Your task to perform on an android device: Go to network settings Image 0: 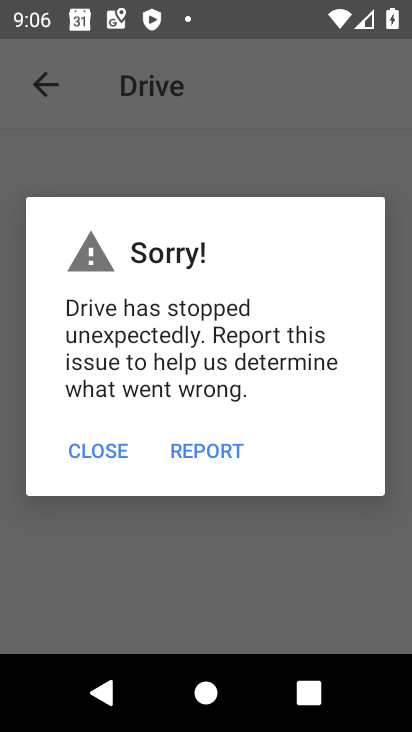
Step 0: press home button
Your task to perform on an android device: Go to network settings Image 1: 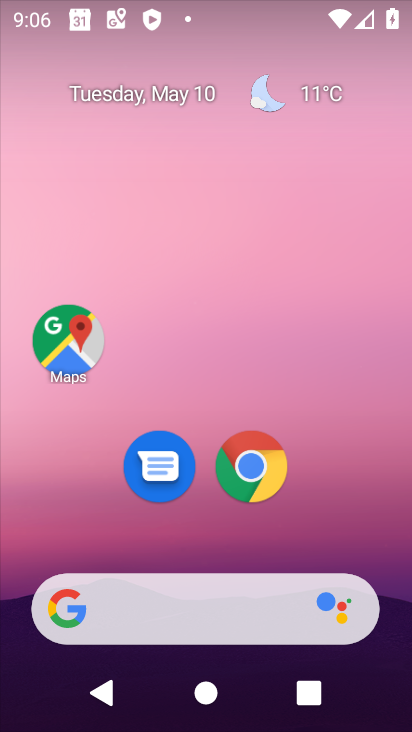
Step 1: drag from (365, 439) to (240, 169)
Your task to perform on an android device: Go to network settings Image 2: 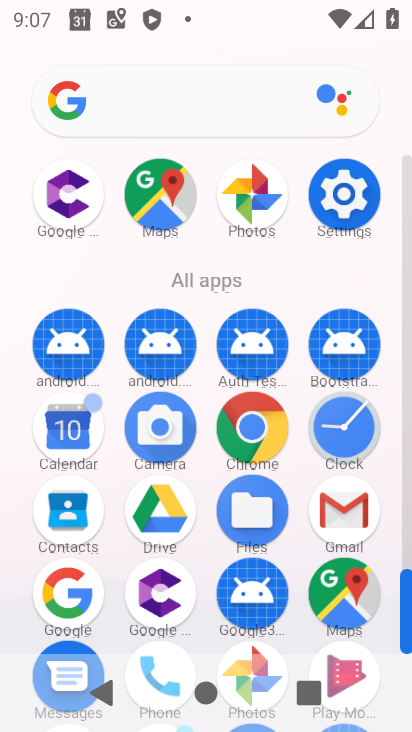
Step 2: click (358, 222)
Your task to perform on an android device: Go to network settings Image 3: 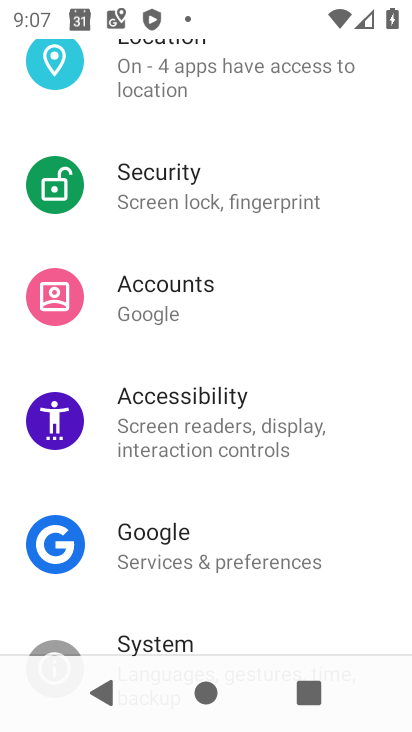
Step 3: drag from (244, 597) to (188, 295)
Your task to perform on an android device: Go to network settings Image 4: 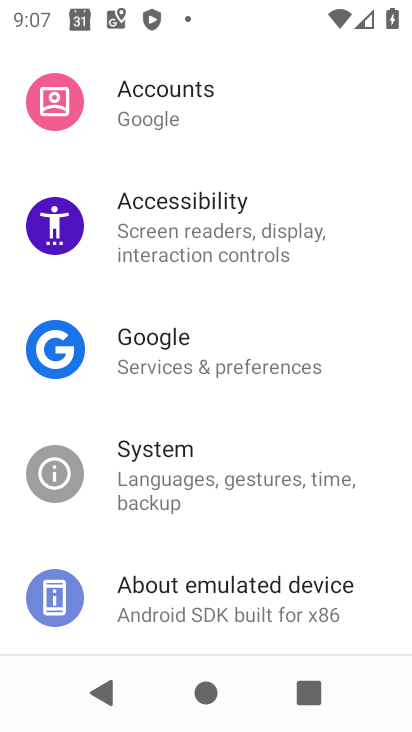
Step 4: click (207, 590)
Your task to perform on an android device: Go to network settings Image 5: 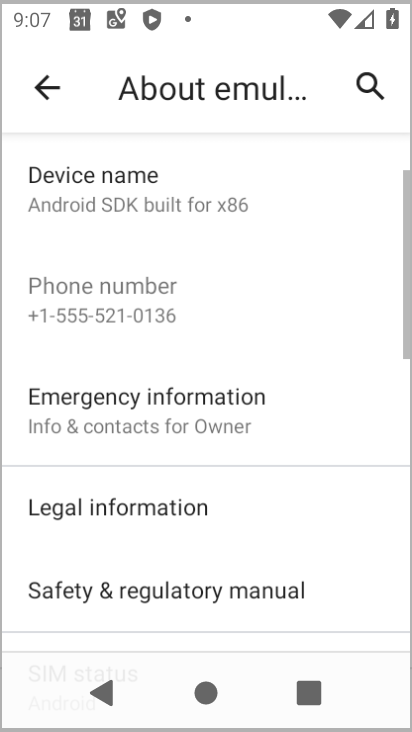
Step 5: drag from (213, 276) to (239, 624)
Your task to perform on an android device: Go to network settings Image 6: 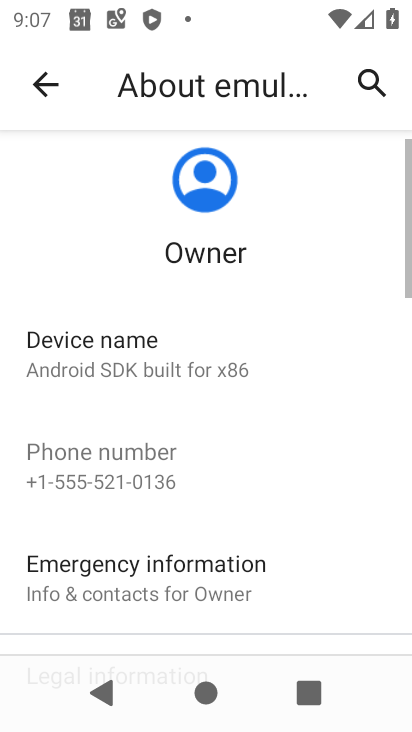
Step 6: click (33, 89)
Your task to perform on an android device: Go to network settings Image 7: 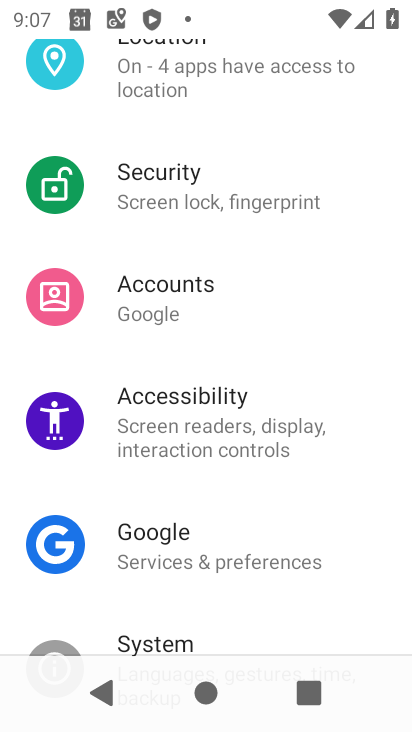
Step 7: drag from (248, 178) to (168, 600)
Your task to perform on an android device: Go to network settings Image 8: 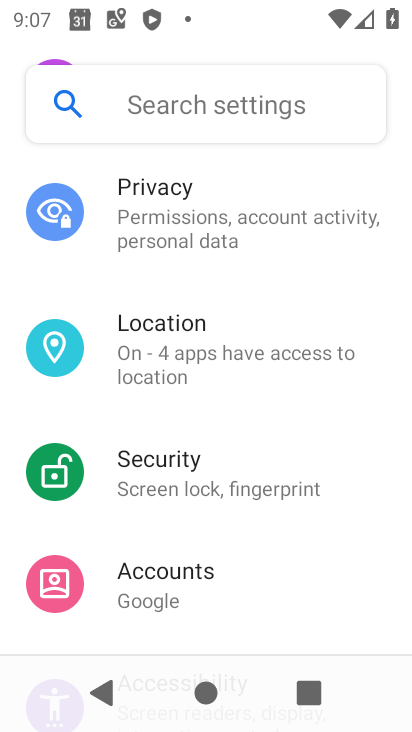
Step 8: drag from (192, 196) to (233, 526)
Your task to perform on an android device: Go to network settings Image 9: 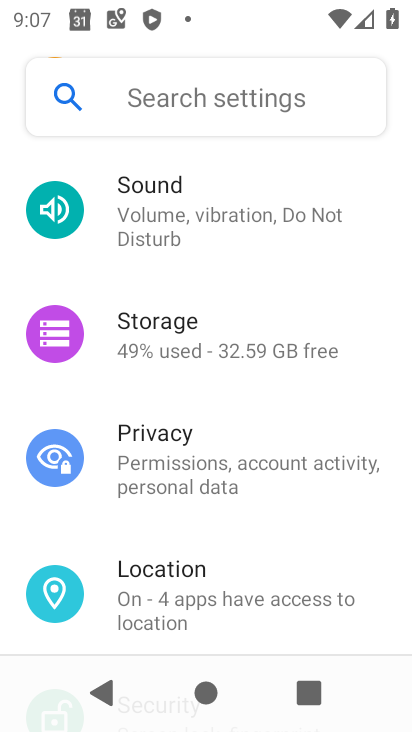
Step 9: drag from (205, 144) to (241, 518)
Your task to perform on an android device: Go to network settings Image 10: 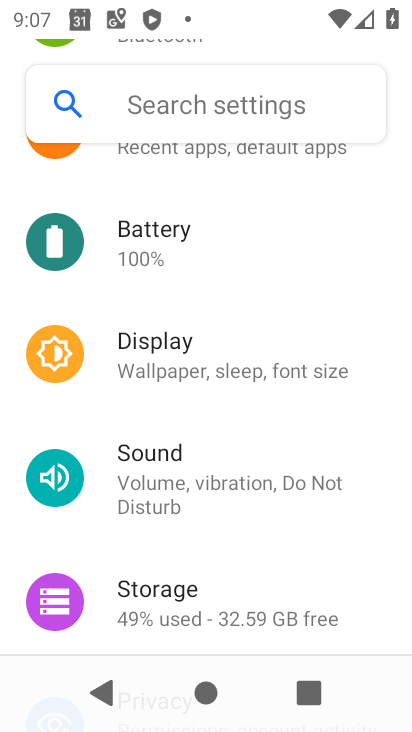
Step 10: drag from (207, 111) to (251, 549)
Your task to perform on an android device: Go to network settings Image 11: 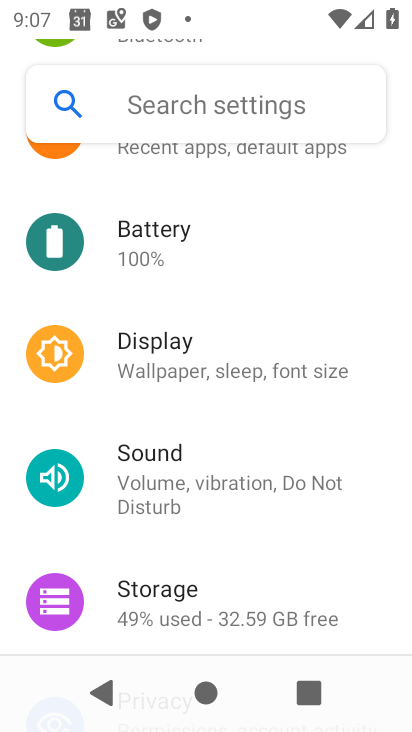
Step 11: drag from (240, 219) to (255, 550)
Your task to perform on an android device: Go to network settings Image 12: 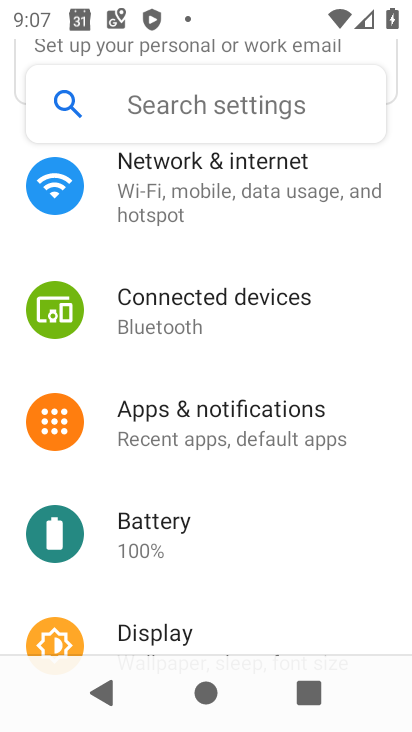
Step 12: drag from (197, 243) to (190, 547)
Your task to perform on an android device: Go to network settings Image 13: 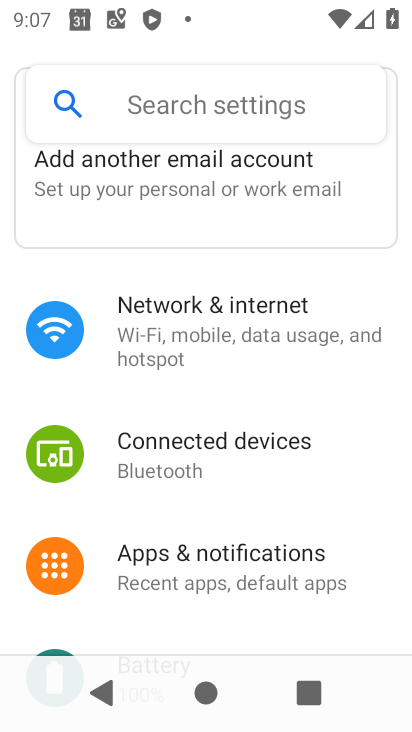
Step 13: click (147, 340)
Your task to perform on an android device: Go to network settings Image 14: 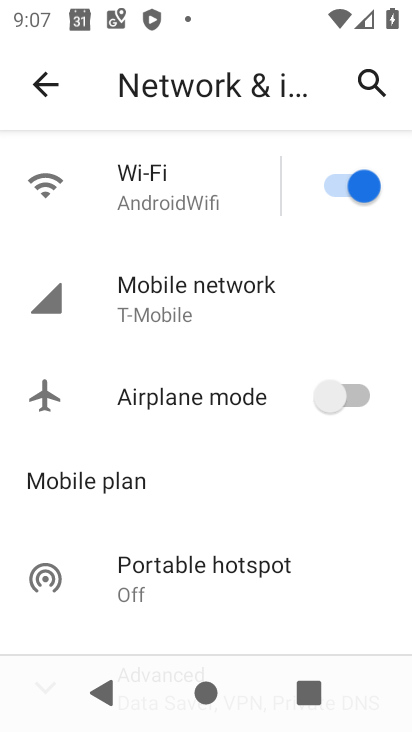
Step 14: task complete